Your task to perform on an android device: snooze an email in the gmail app Image 0: 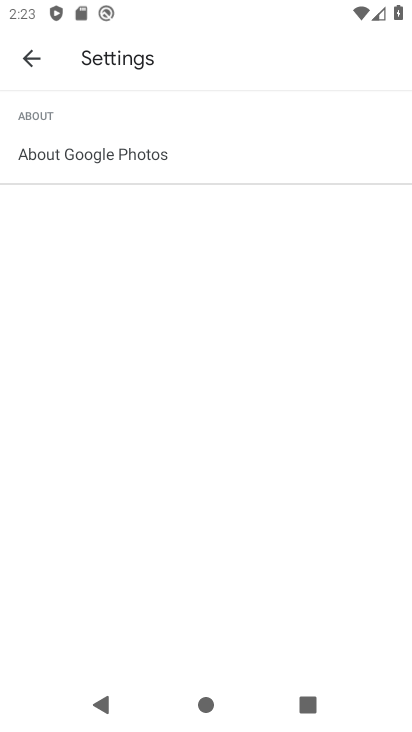
Step 0: press home button
Your task to perform on an android device: snooze an email in the gmail app Image 1: 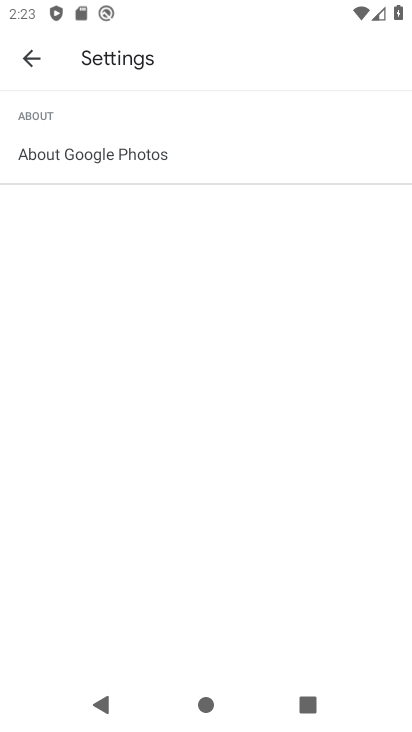
Step 1: press home button
Your task to perform on an android device: snooze an email in the gmail app Image 2: 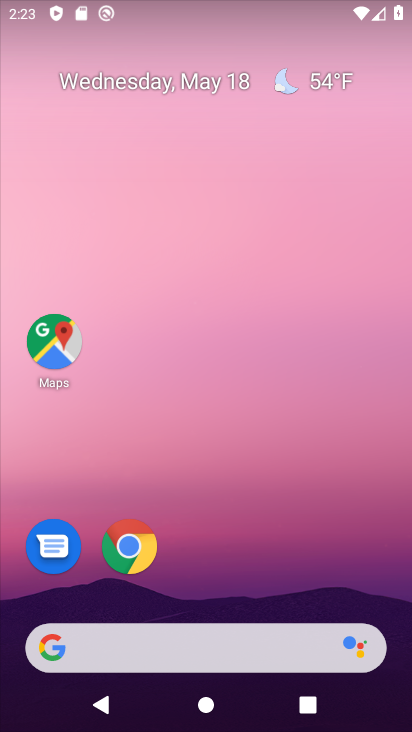
Step 2: drag from (226, 498) to (221, 23)
Your task to perform on an android device: snooze an email in the gmail app Image 3: 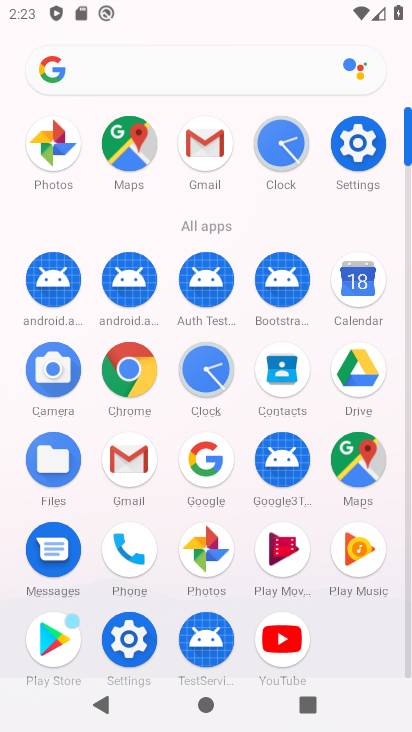
Step 3: click (132, 467)
Your task to perform on an android device: snooze an email in the gmail app Image 4: 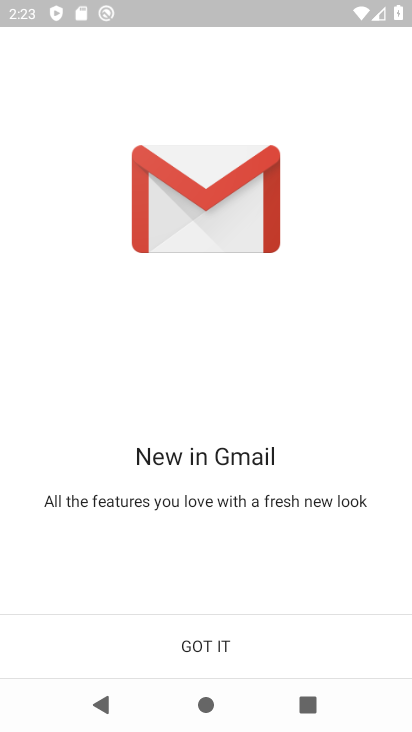
Step 4: click (219, 637)
Your task to perform on an android device: snooze an email in the gmail app Image 5: 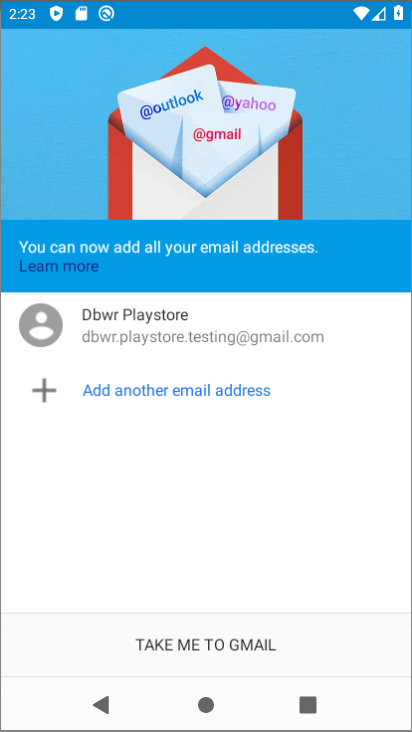
Step 5: click (219, 637)
Your task to perform on an android device: snooze an email in the gmail app Image 6: 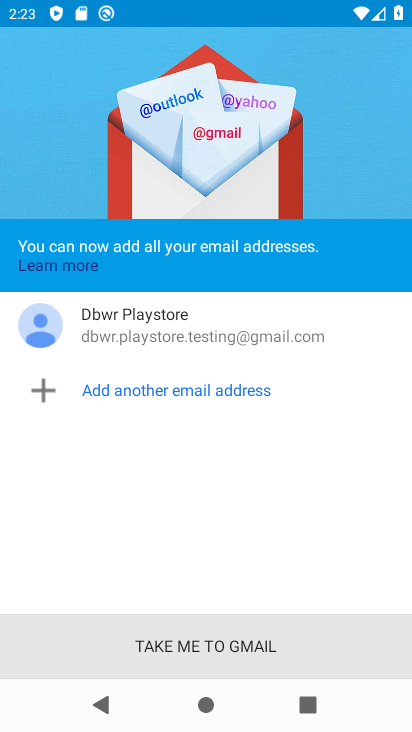
Step 6: click (219, 637)
Your task to perform on an android device: snooze an email in the gmail app Image 7: 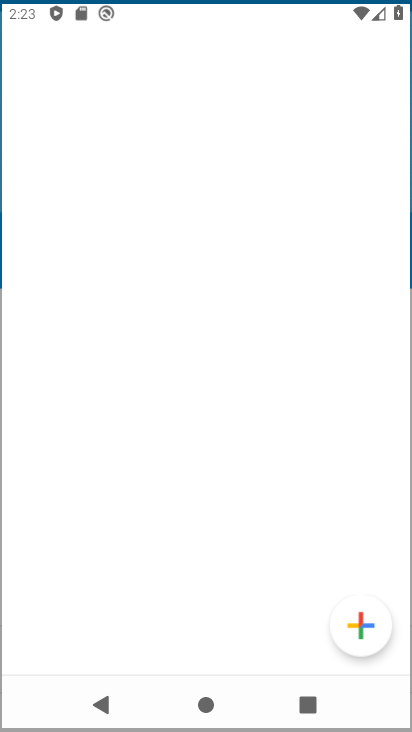
Step 7: click (219, 637)
Your task to perform on an android device: snooze an email in the gmail app Image 8: 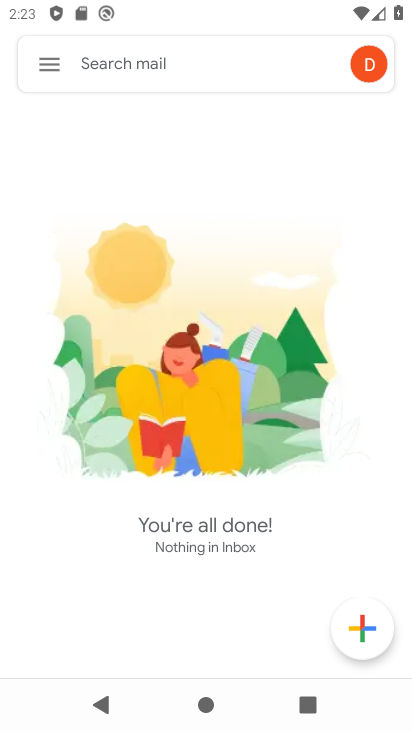
Step 8: click (49, 51)
Your task to perform on an android device: snooze an email in the gmail app Image 9: 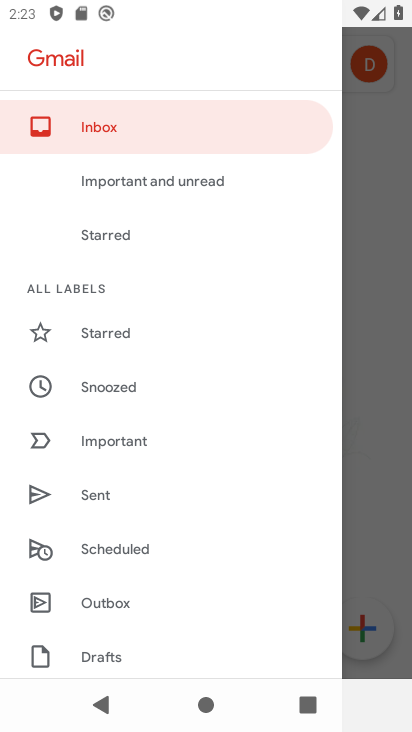
Step 9: task complete